Your task to perform on an android device: What's the weather today? Image 0: 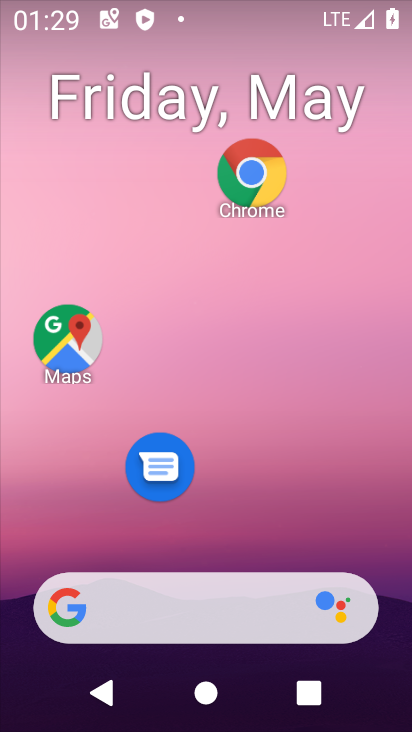
Step 0: click (227, 615)
Your task to perform on an android device: What's the weather today? Image 1: 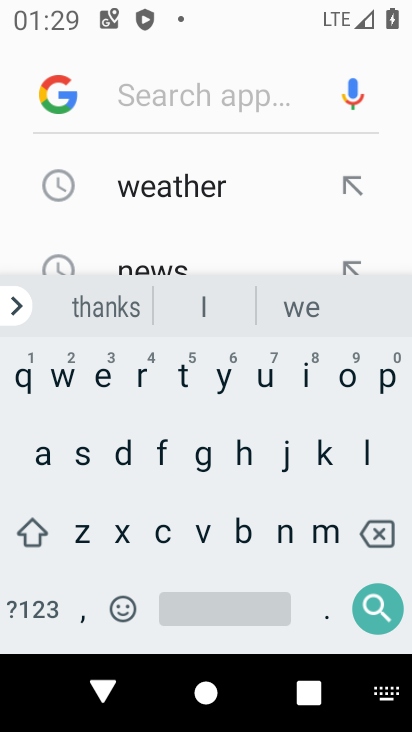
Step 1: click (155, 201)
Your task to perform on an android device: What's the weather today? Image 2: 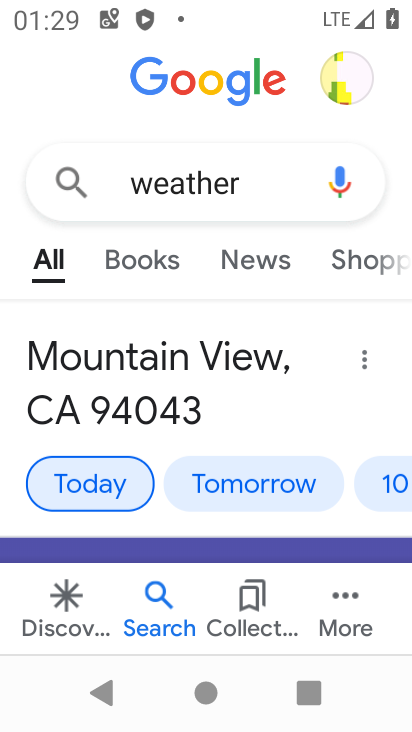
Step 2: task complete